Your task to perform on an android device: change keyboard looks Image 0: 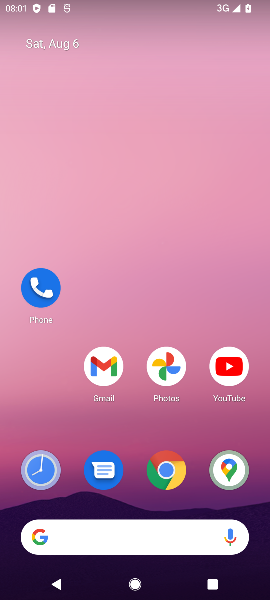
Step 0: press home button
Your task to perform on an android device: change keyboard looks Image 1: 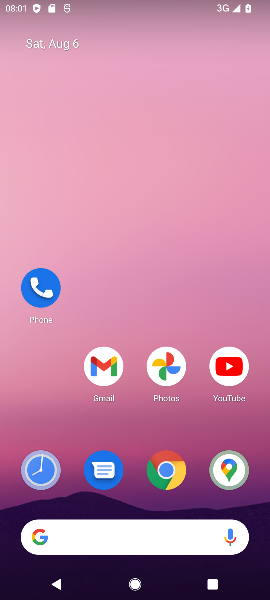
Step 1: drag from (152, 497) to (146, 182)
Your task to perform on an android device: change keyboard looks Image 2: 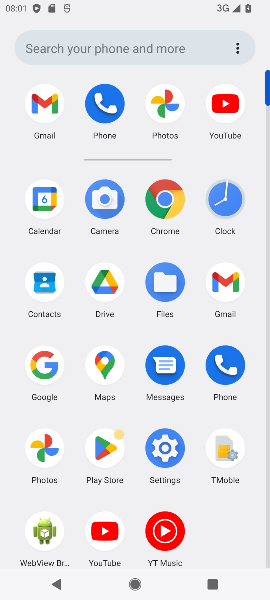
Step 2: click (154, 453)
Your task to perform on an android device: change keyboard looks Image 3: 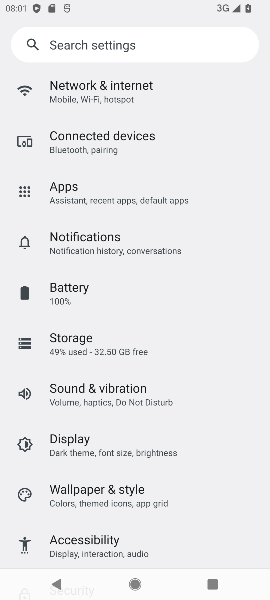
Step 3: drag from (146, 466) to (121, 198)
Your task to perform on an android device: change keyboard looks Image 4: 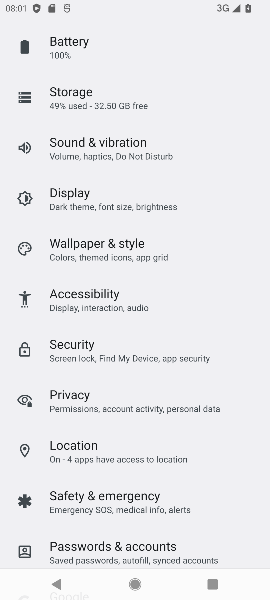
Step 4: drag from (139, 516) to (156, 230)
Your task to perform on an android device: change keyboard looks Image 5: 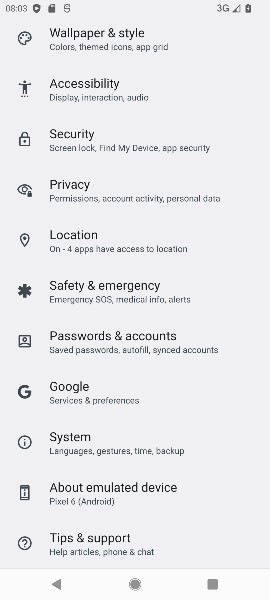
Step 5: click (91, 502)
Your task to perform on an android device: change keyboard looks Image 6: 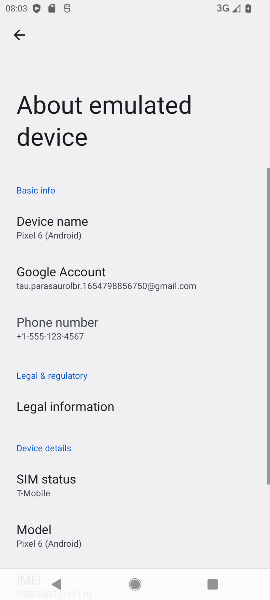
Step 6: press back button
Your task to perform on an android device: change keyboard looks Image 7: 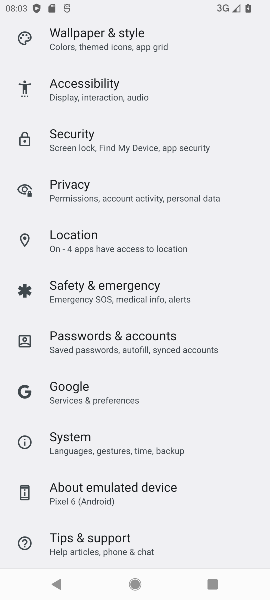
Step 7: drag from (143, 246) to (130, 599)
Your task to perform on an android device: change keyboard looks Image 8: 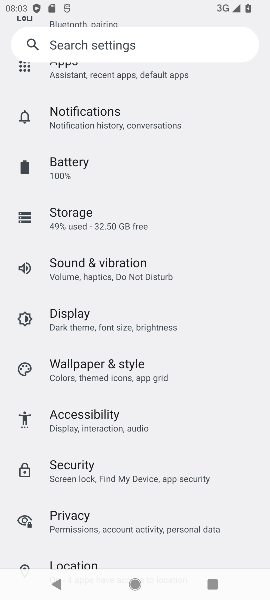
Step 8: drag from (87, 538) to (72, 295)
Your task to perform on an android device: change keyboard looks Image 9: 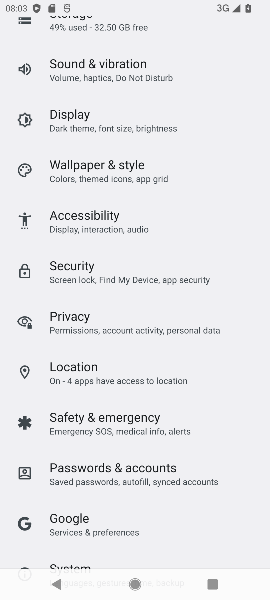
Step 9: drag from (53, 550) to (83, 234)
Your task to perform on an android device: change keyboard looks Image 10: 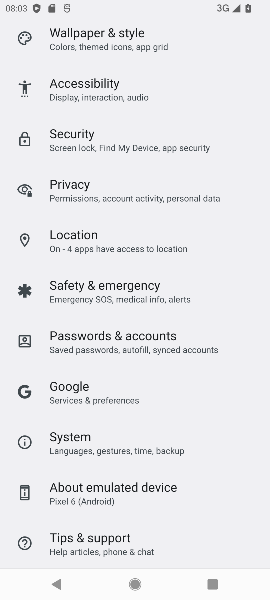
Step 10: click (83, 452)
Your task to perform on an android device: change keyboard looks Image 11: 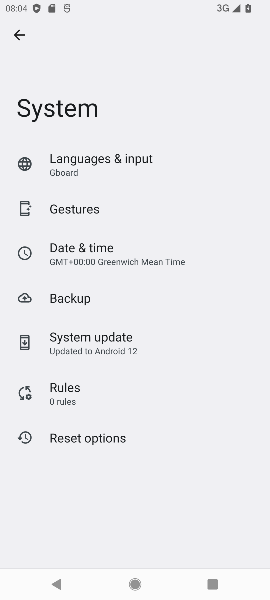
Step 11: click (95, 169)
Your task to perform on an android device: change keyboard looks Image 12: 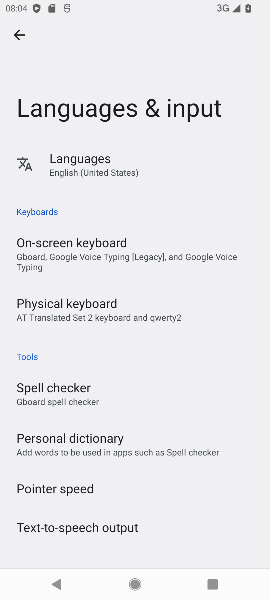
Step 12: click (97, 245)
Your task to perform on an android device: change keyboard looks Image 13: 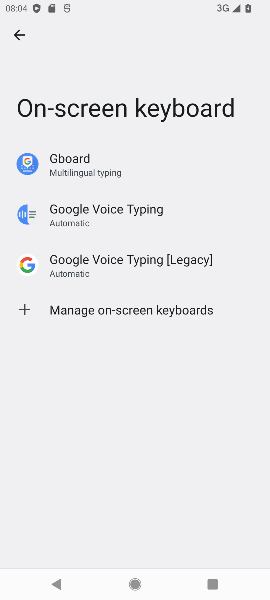
Step 13: click (92, 169)
Your task to perform on an android device: change keyboard looks Image 14: 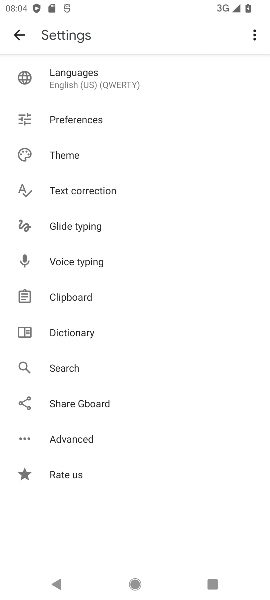
Step 14: click (64, 162)
Your task to perform on an android device: change keyboard looks Image 15: 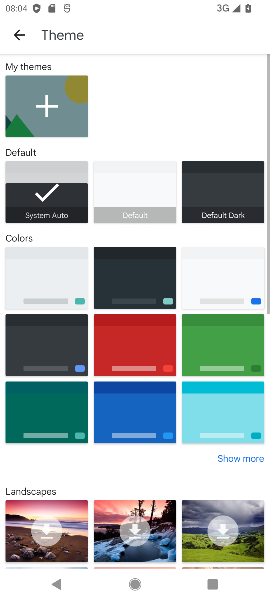
Step 15: click (154, 282)
Your task to perform on an android device: change keyboard looks Image 16: 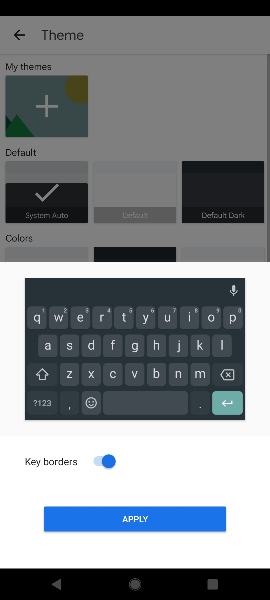
Step 16: task complete